Your task to perform on an android device: Open calendar and show me the third week of next month Image 0: 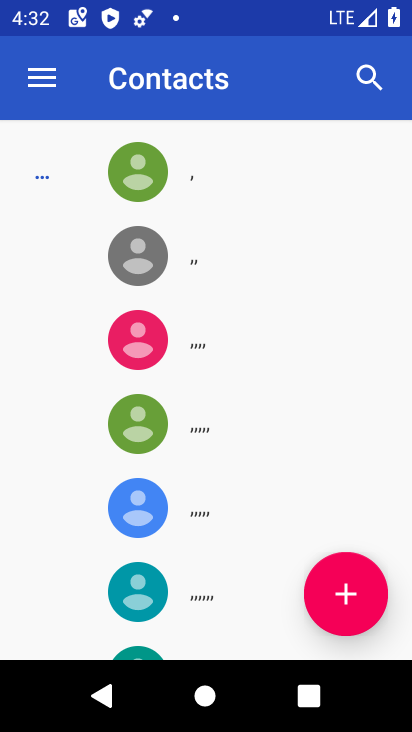
Step 0: press home button
Your task to perform on an android device: Open calendar and show me the third week of next month Image 1: 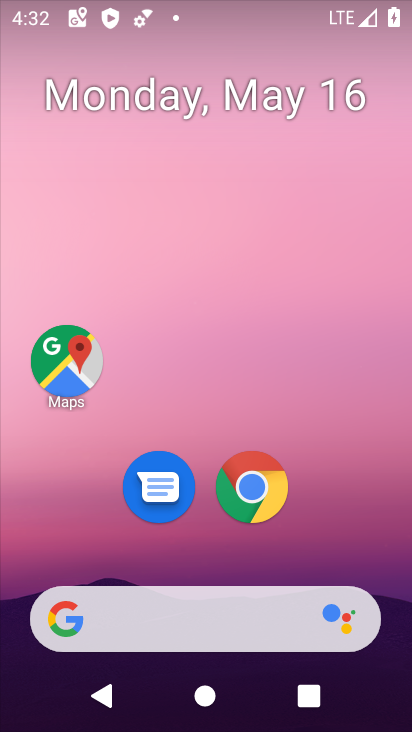
Step 1: drag from (401, 611) to (308, 41)
Your task to perform on an android device: Open calendar and show me the third week of next month Image 2: 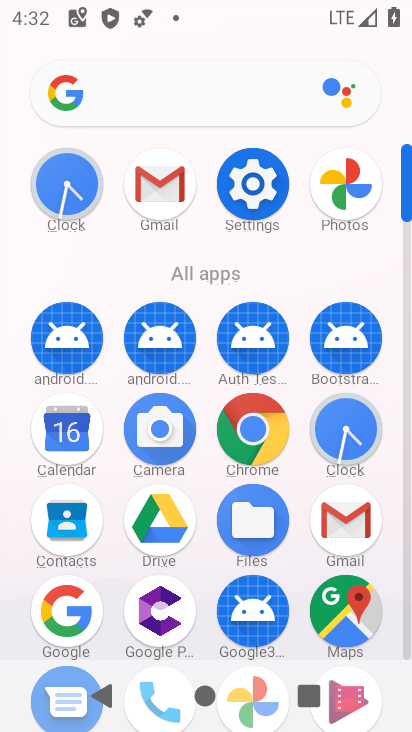
Step 2: click (62, 428)
Your task to perform on an android device: Open calendar and show me the third week of next month Image 3: 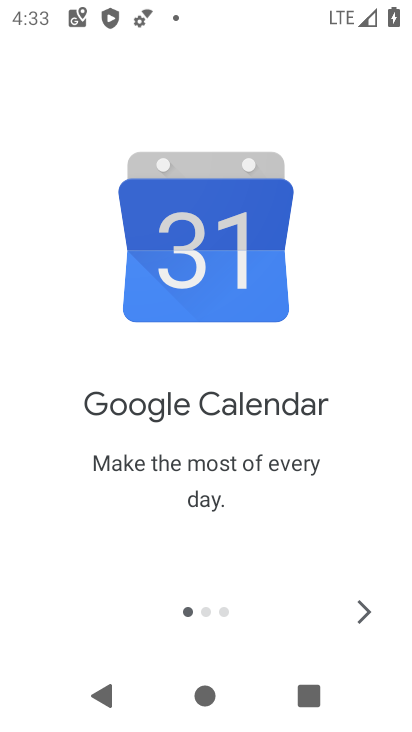
Step 3: click (363, 609)
Your task to perform on an android device: Open calendar and show me the third week of next month Image 4: 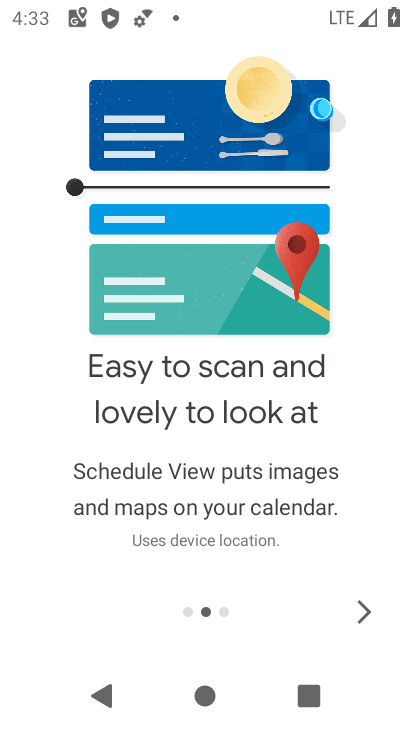
Step 4: click (363, 609)
Your task to perform on an android device: Open calendar and show me the third week of next month Image 5: 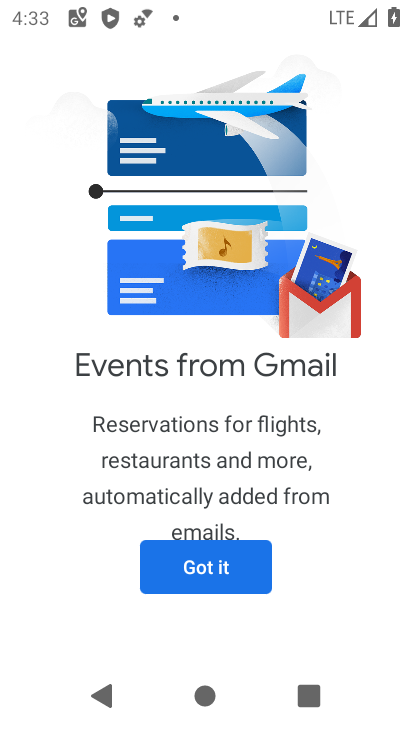
Step 5: click (193, 567)
Your task to perform on an android device: Open calendar and show me the third week of next month Image 6: 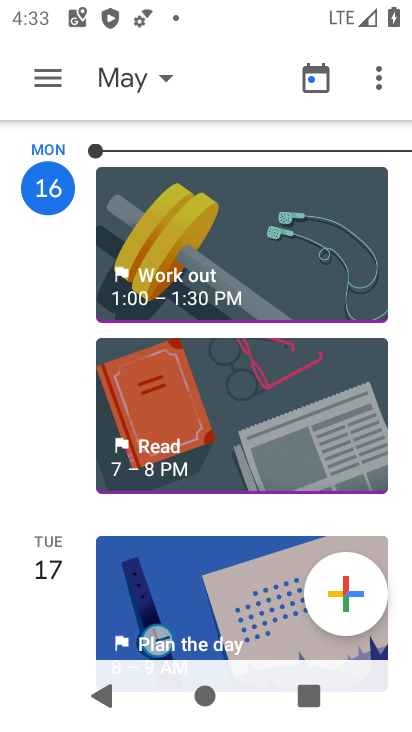
Step 6: click (47, 74)
Your task to perform on an android device: Open calendar and show me the third week of next month Image 7: 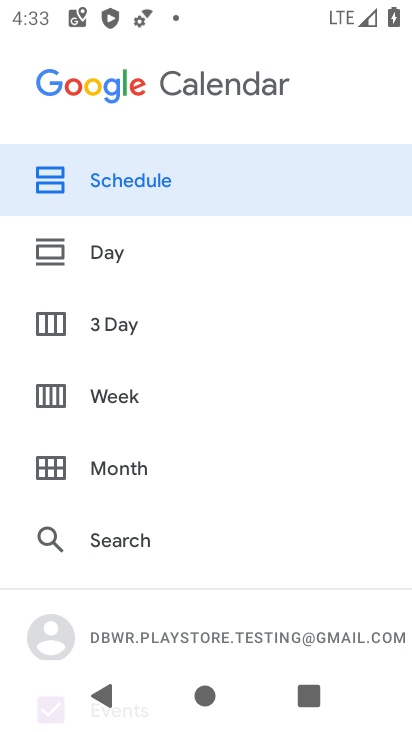
Step 7: click (106, 396)
Your task to perform on an android device: Open calendar and show me the third week of next month Image 8: 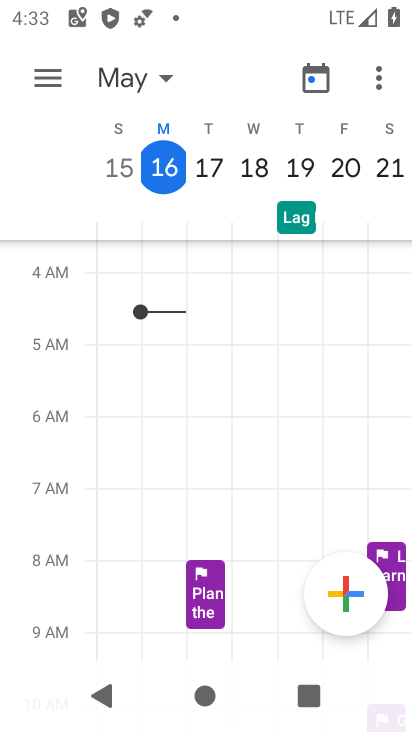
Step 8: click (166, 73)
Your task to perform on an android device: Open calendar and show me the third week of next month Image 9: 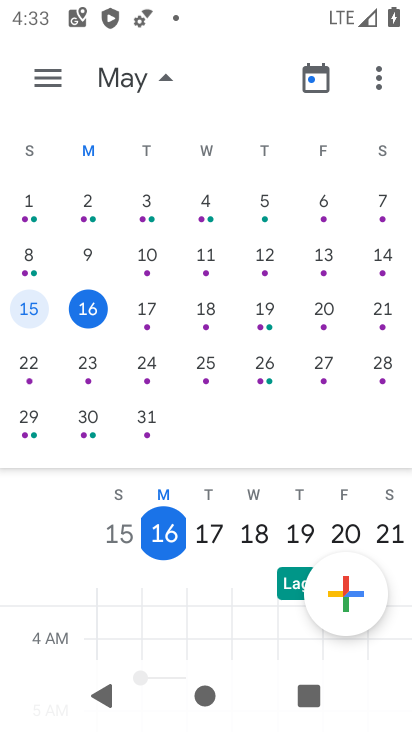
Step 9: drag from (371, 350) to (12, 189)
Your task to perform on an android device: Open calendar and show me the third week of next month Image 10: 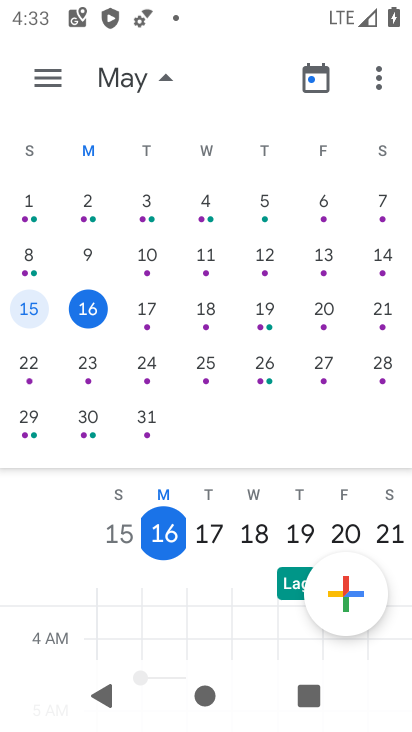
Step 10: drag from (376, 306) to (9, 210)
Your task to perform on an android device: Open calendar and show me the third week of next month Image 11: 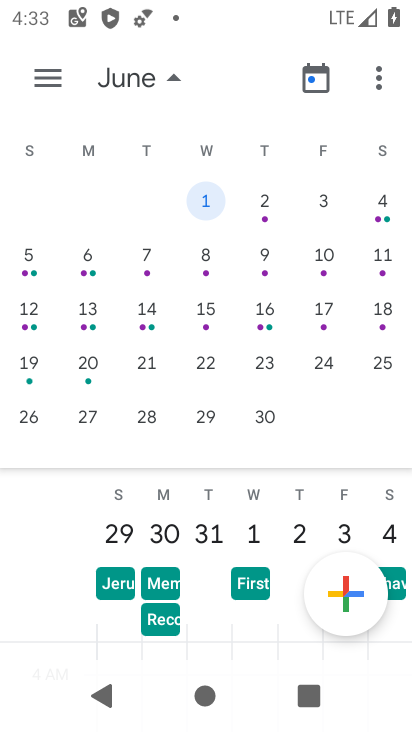
Step 11: click (30, 308)
Your task to perform on an android device: Open calendar and show me the third week of next month Image 12: 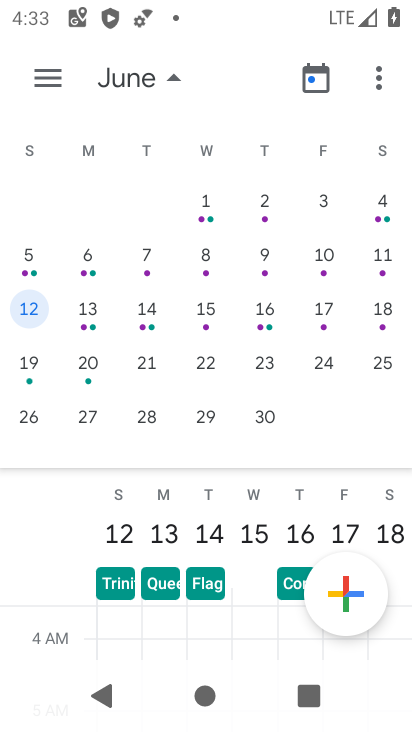
Step 12: task complete